Your task to perform on an android device: Is it going to rain today? Image 0: 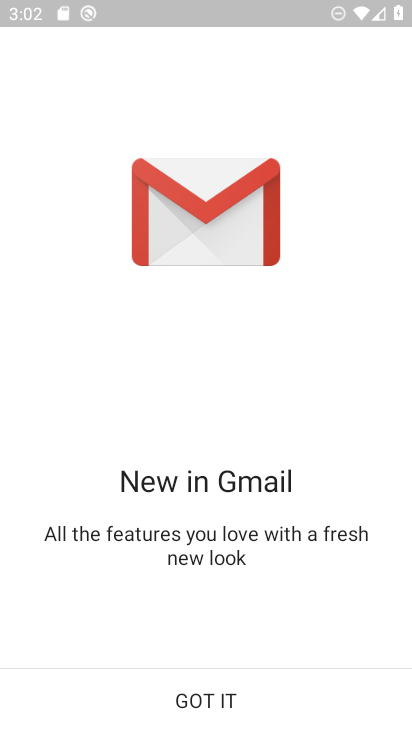
Step 0: press home button
Your task to perform on an android device: Is it going to rain today? Image 1: 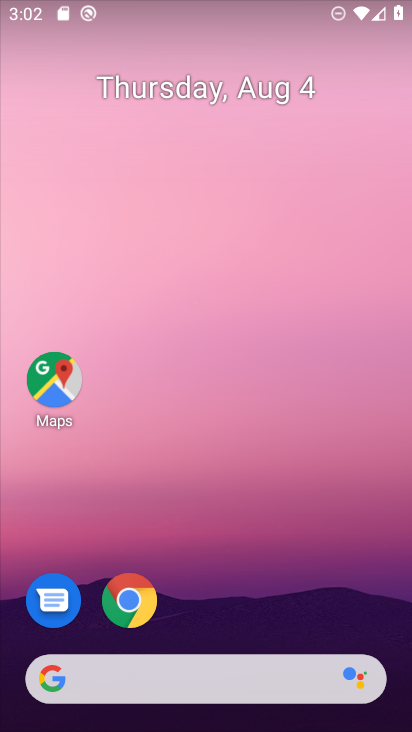
Step 1: click (148, 690)
Your task to perform on an android device: Is it going to rain today? Image 2: 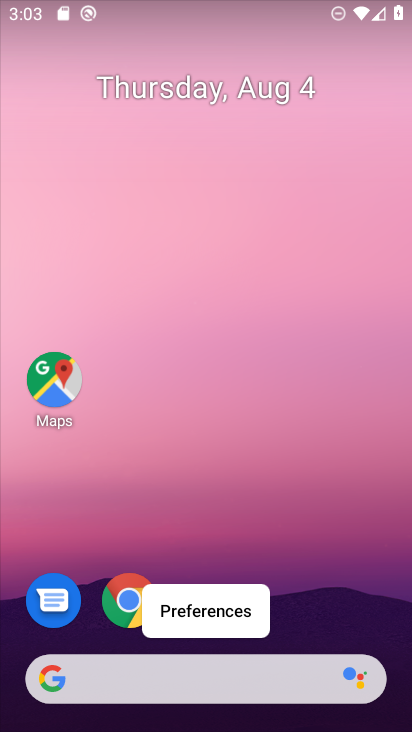
Step 2: click (146, 682)
Your task to perform on an android device: Is it going to rain today? Image 3: 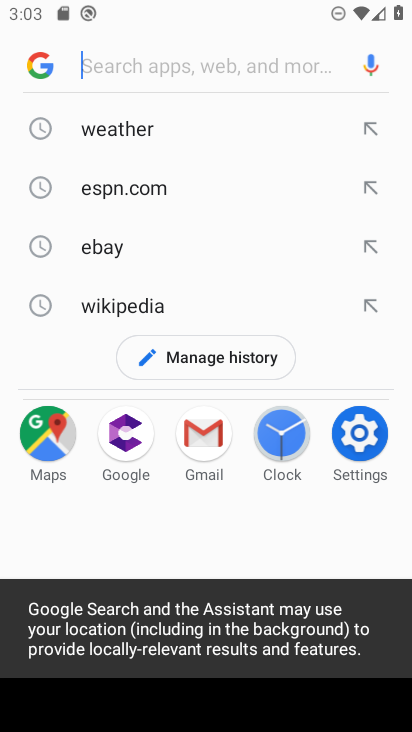
Step 3: click (136, 130)
Your task to perform on an android device: Is it going to rain today? Image 4: 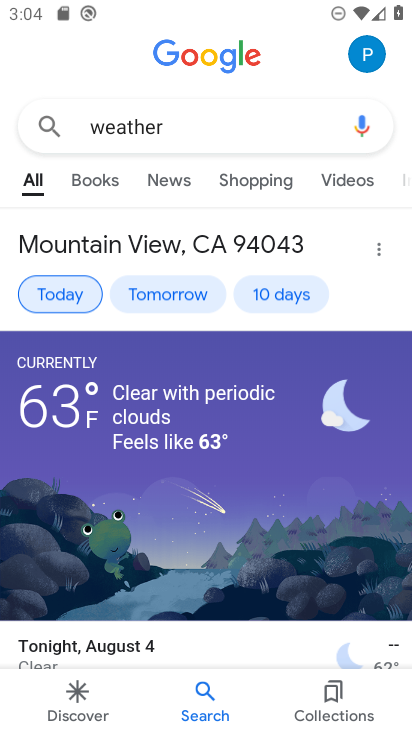
Step 4: task complete